Your task to perform on an android device: Open calendar and show me the third week of next month Image 0: 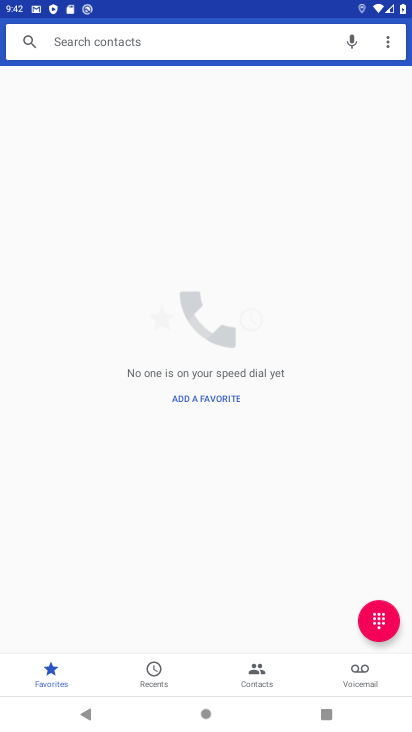
Step 0: press back button
Your task to perform on an android device: Open calendar and show me the third week of next month Image 1: 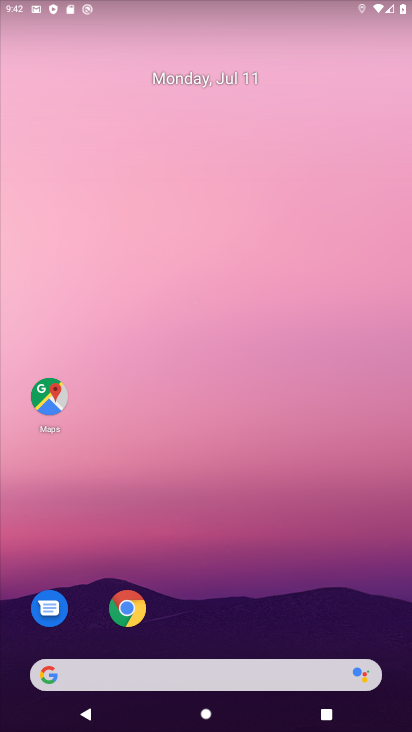
Step 1: drag from (299, 659) to (316, 184)
Your task to perform on an android device: Open calendar and show me the third week of next month Image 2: 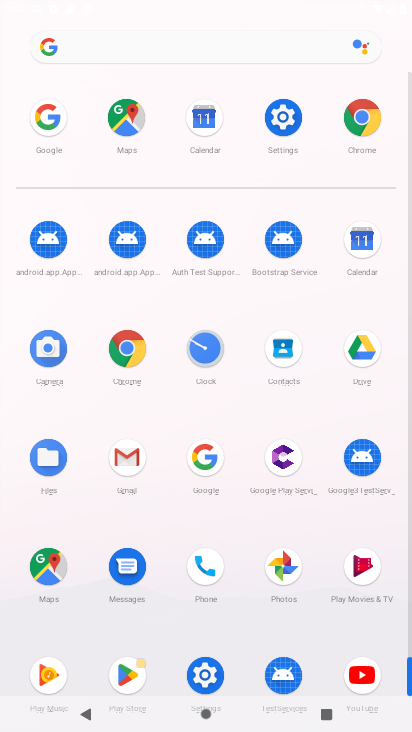
Step 2: click (355, 250)
Your task to perform on an android device: Open calendar and show me the third week of next month Image 3: 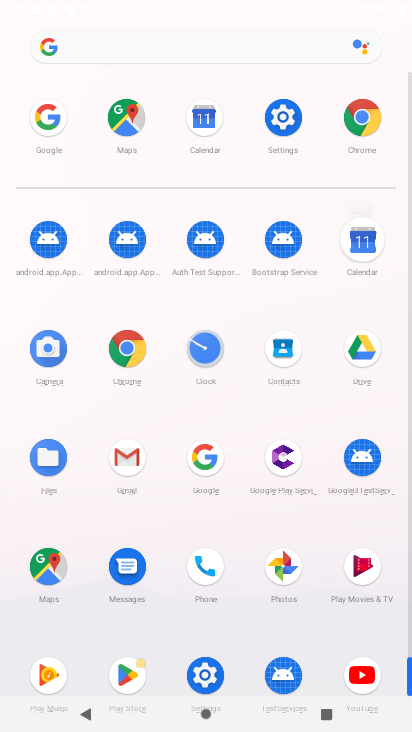
Step 3: click (355, 250)
Your task to perform on an android device: Open calendar and show me the third week of next month Image 4: 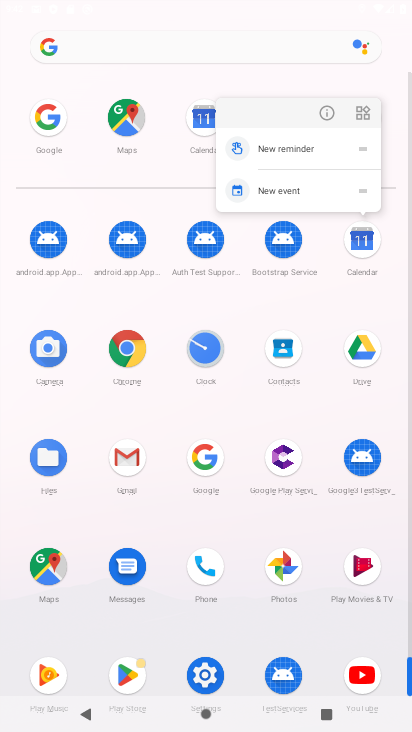
Step 4: click (369, 242)
Your task to perform on an android device: Open calendar and show me the third week of next month Image 5: 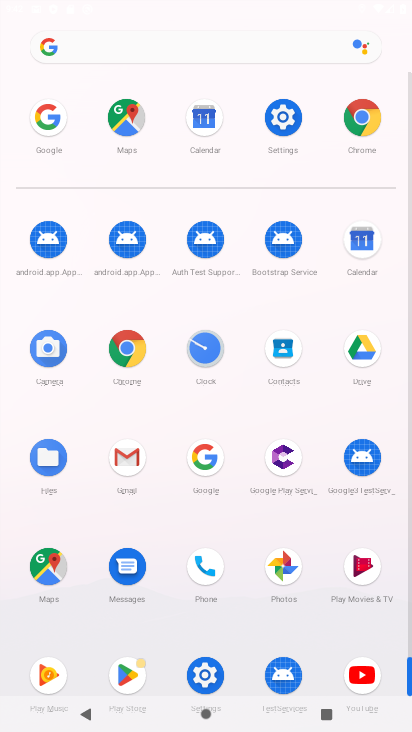
Step 5: click (367, 242)
Your task to perform on an android device: Open calendar and show me the third week of next month Image 6: 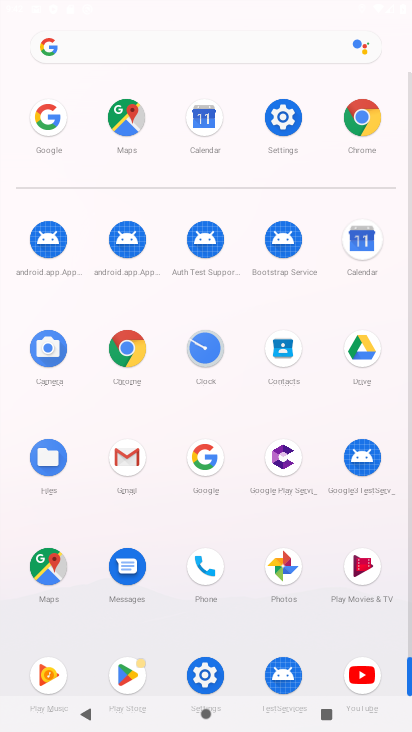
Step 6: click (367, 242)
Your task to perform on an android device: Open calendar and show me the third week of next month Image 7: 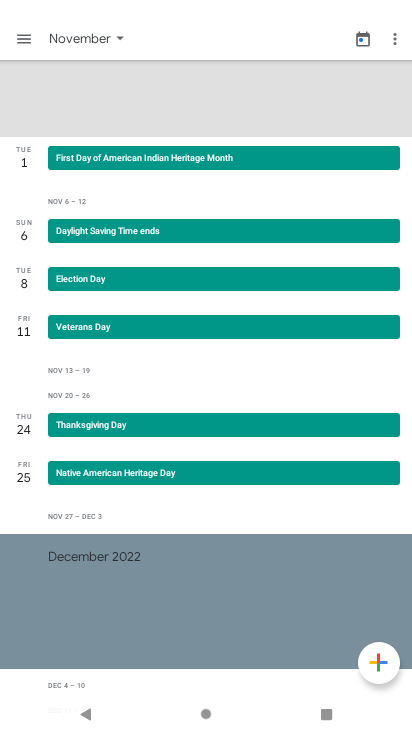
Step 7: click (116, 37)
Your task to perform on an android device: Open calendar and show me the third week of next month Image 8: 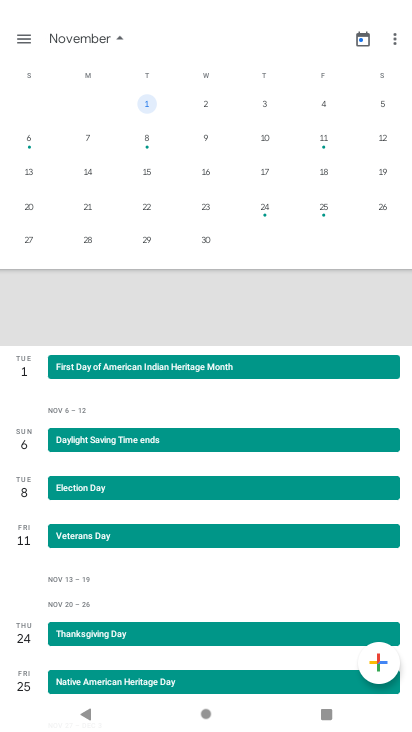
Step 8: drag from (68, 163) to (409, 235)
Your task to perform on an android device: Open calendar and show me the third week of next month Image 9: 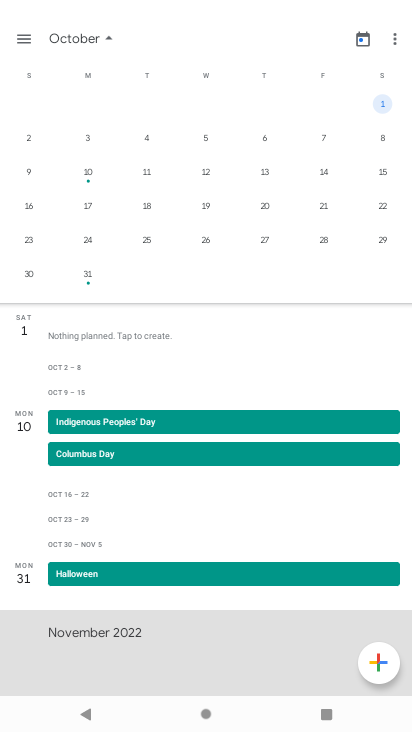
Step 9: drag from (83, 168) to (406, 189)
Your task to perform on an android device: Open calendar and show me the third week of next month Image 10: 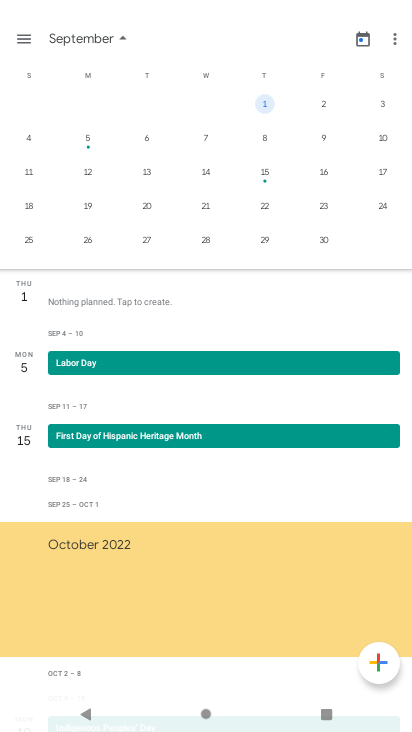
Step 10: drag from (84, 169) to (397, 206)
Your task to perform on an android device: Open calendar and show me the third week of next month Image 11: 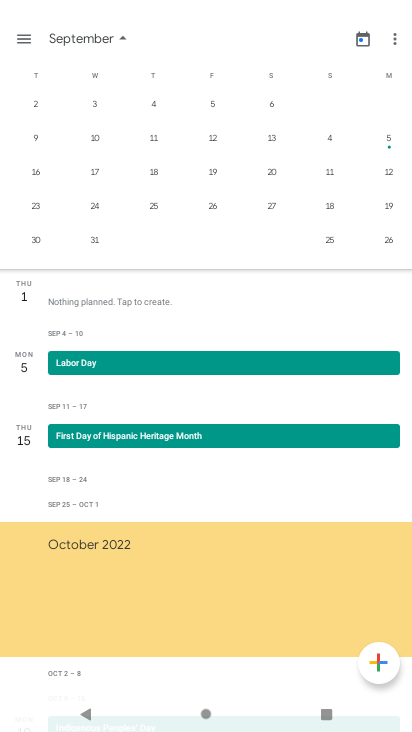
Step 11: drag from (179, 138) to (395, 156)
Your task to perform on an android device: Open calendar and show me the third week of next month Image 12: 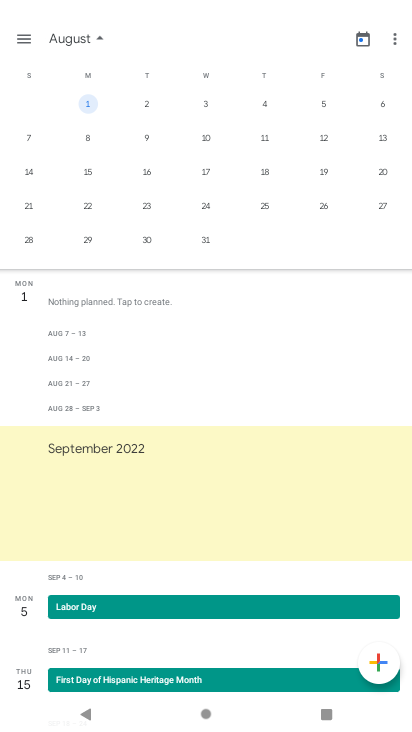
Step 12: click (145, 171)
Your task to perform on an android device: Open calendar and show me the third week of next month Image 13: 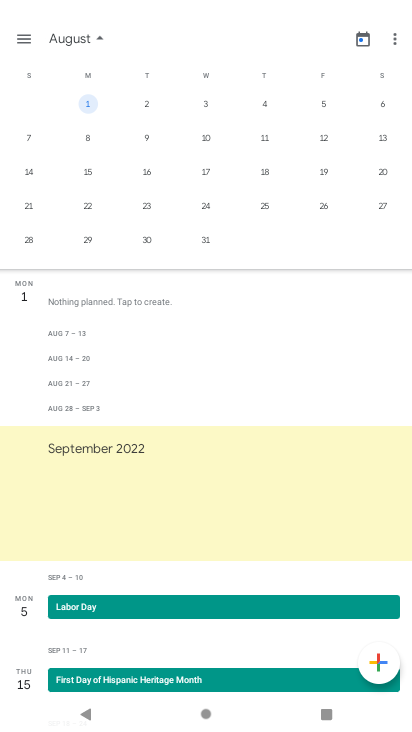
Step 13: click (145, 168)
Your task to perform on an android device: Open calendar and show me the third week of next month Image 14: 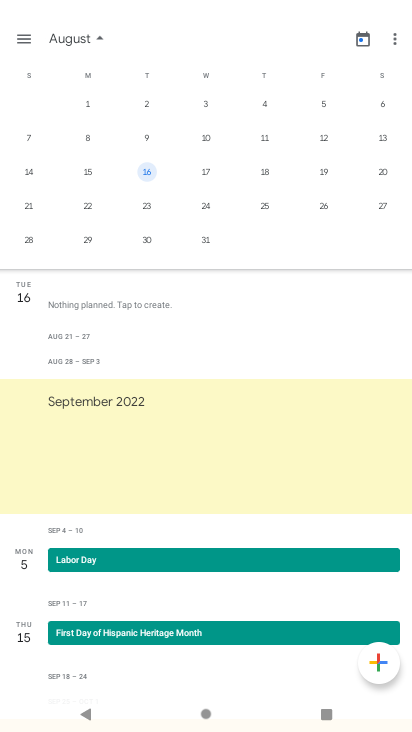
Step 14: click (145, 168)
Your task to perform on an android device: Open calendar and show me the third week of next month Image 15: 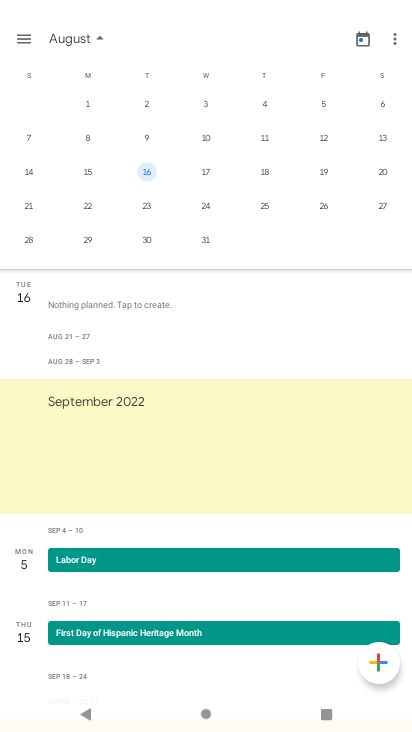
Step 15: click (144, 167)
Your task to perform on an android device: Open calendar and show me the third week of next month Image 16: 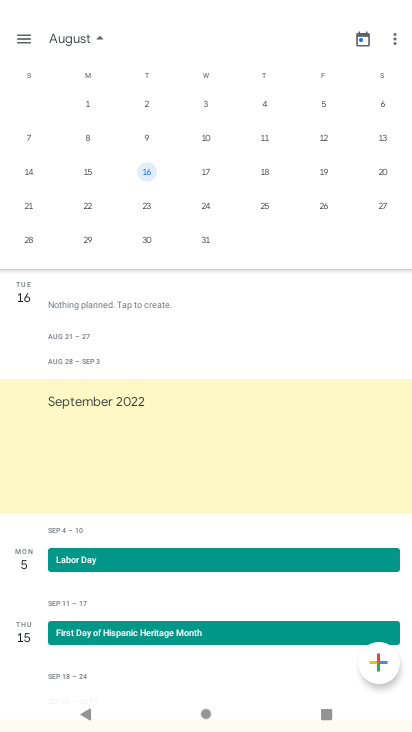
Step 16: task complete